Your task to perform on an android device: Open the map Image 0: 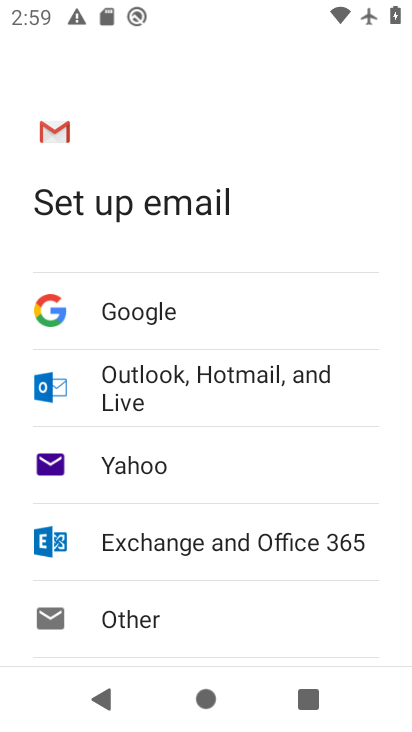
Step 0: press home button
Your task to perform on an android device: Open the map Image 1: 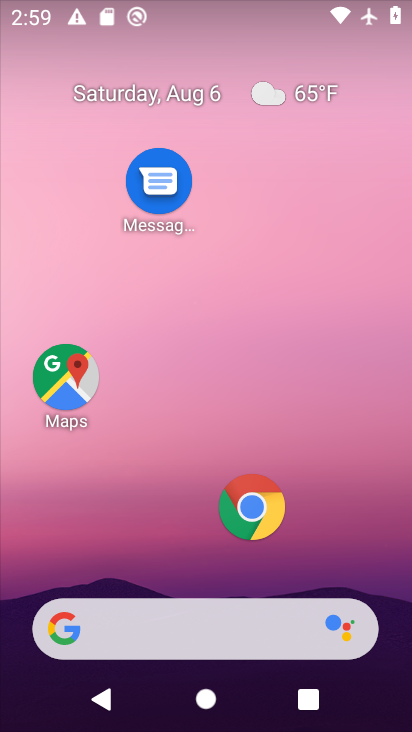
Step 1: click (63, 355)
Your task to perform on an android device: Open the map Image 2: 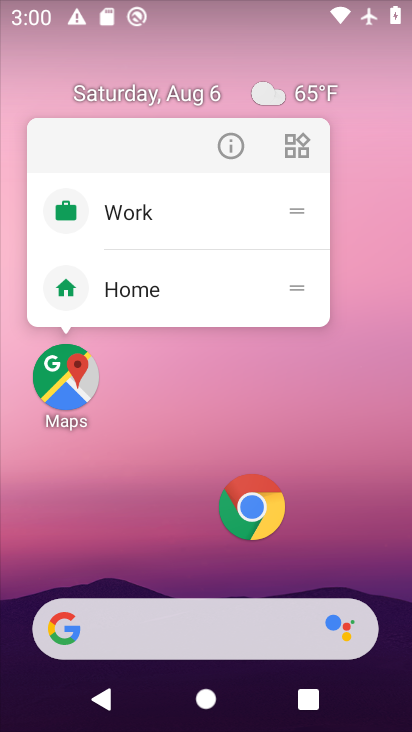
Step 2: click (61, 362)
Your task to perform on an android device: Open the map Image 3: 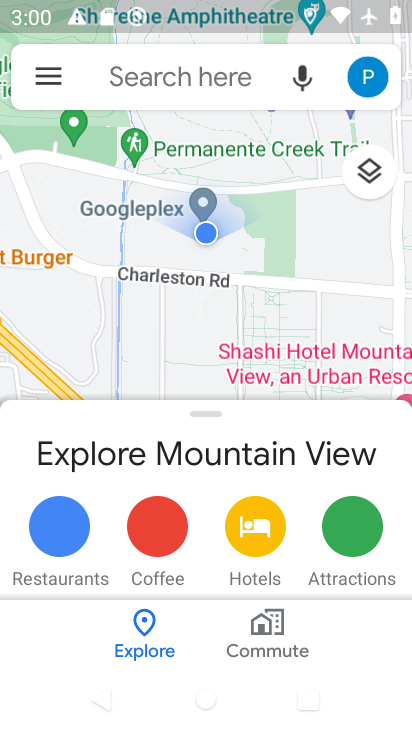
Step 3: task complete